Your task to perform on an android device: Is it going to rain tomorrow? Image 0: 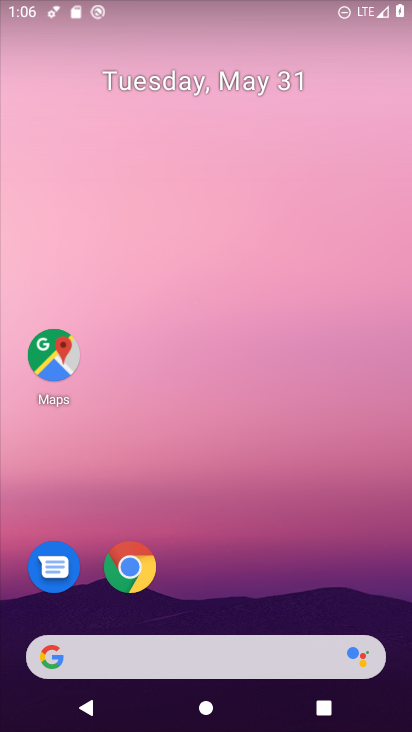
Step 0: drag from (218, 603) to (190, 257)
Your task to perform on an android device: Is it going to rain tomorrow? Image 1: 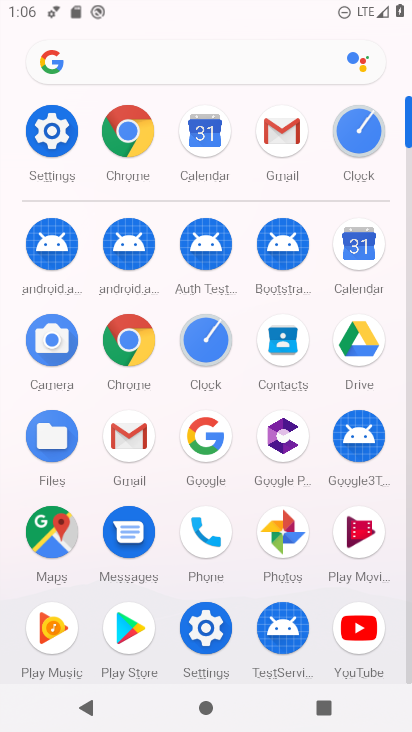
Step 1: click (201, 454)
Your task to perform on an android device: Is it going to rain tomorrow? Image 2: 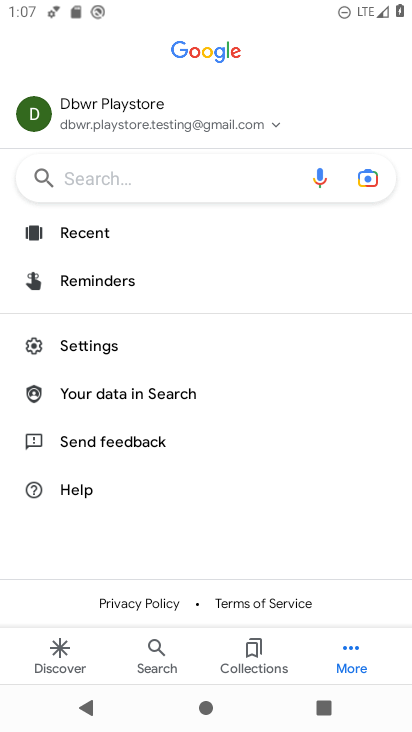
Step 2: click (222, 173)
Your task to perform on an android device: Is it going to rain tomorrow? Image 3: 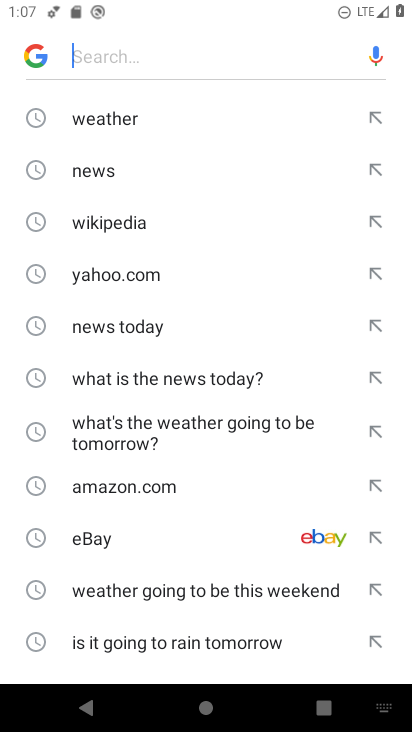
Step 3: click (125, 128)
Your task to perform on an android device: Is it going to rain tomorrow? Image 4: 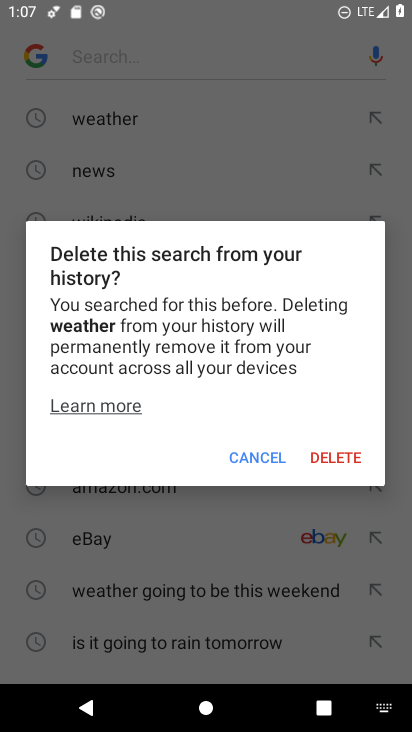
Step 4: click (253, 448)
Your task to perform on an android device: Is it going to rain tomorrow? Image 5: 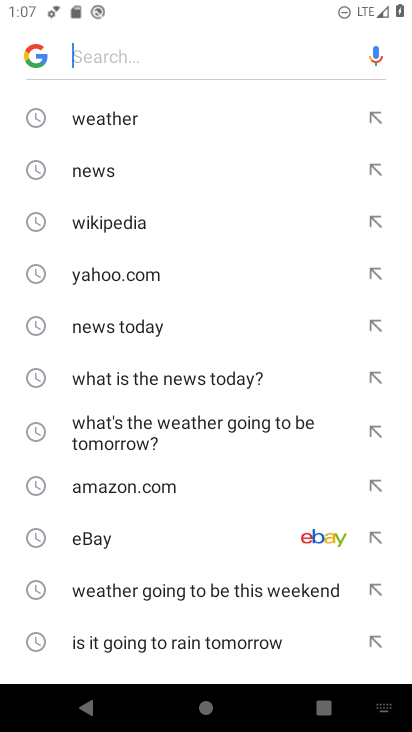
Step 5: click (125, 129)
Your task to perform on an android device: Is it going to rain tomorrow? Image 6: 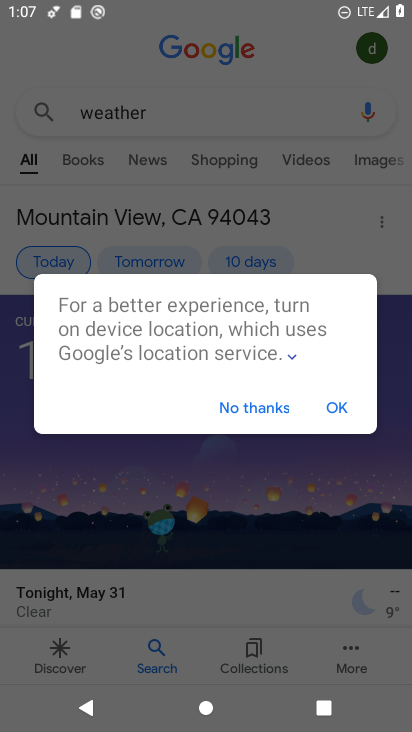
Step 6: click (272, 404)
Your task to perform on an android device: Is it going to rain tomorrow? Image 7: 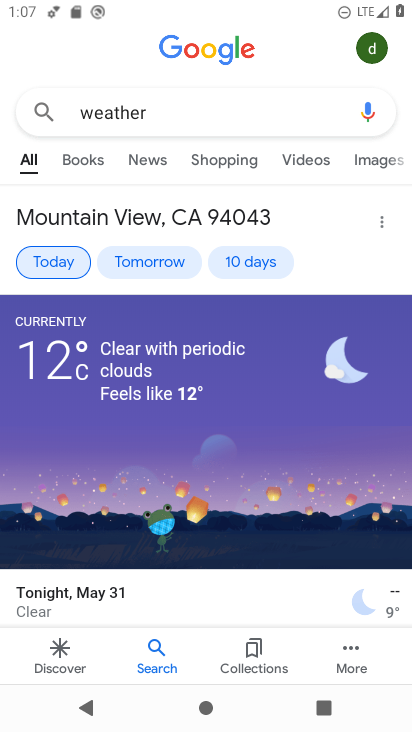
Step 7: click (138, 271)
Your task to perform on an android device: Is it going to rain tomorrow? Image 8: 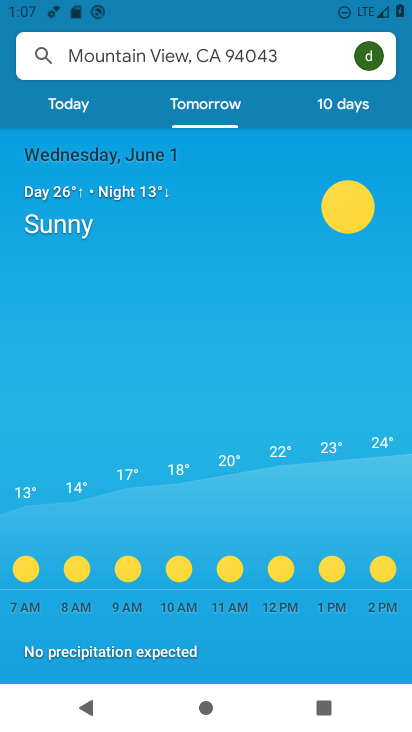
Step 8: task complete